Your task to perform on an android device: install app "Google Find My Device" Image 0: 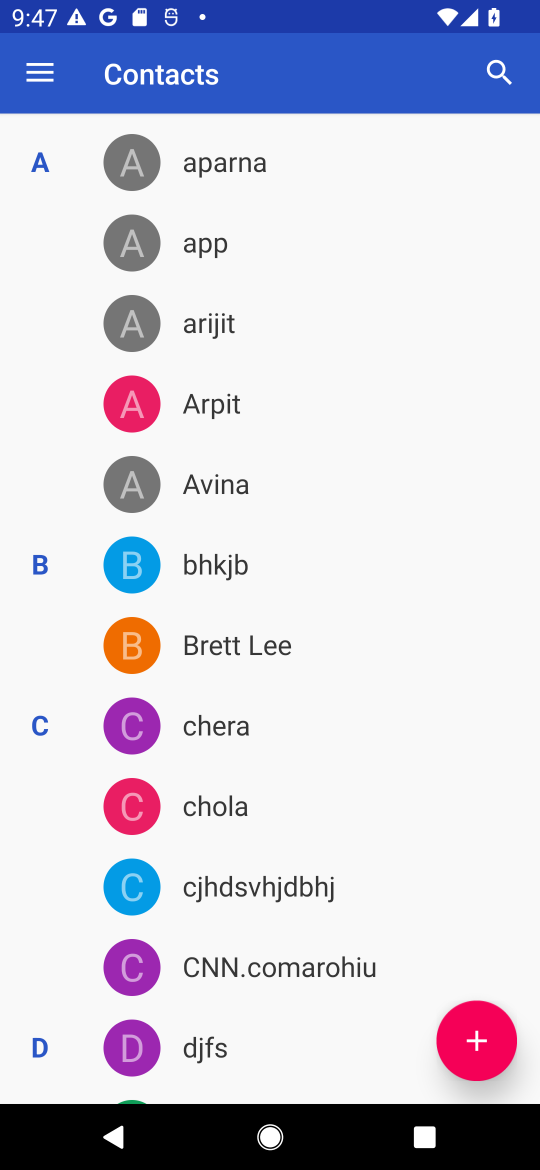
Step 0: press home button
Your task to perform on an android device: install app "Google Find My Device" Image 1: 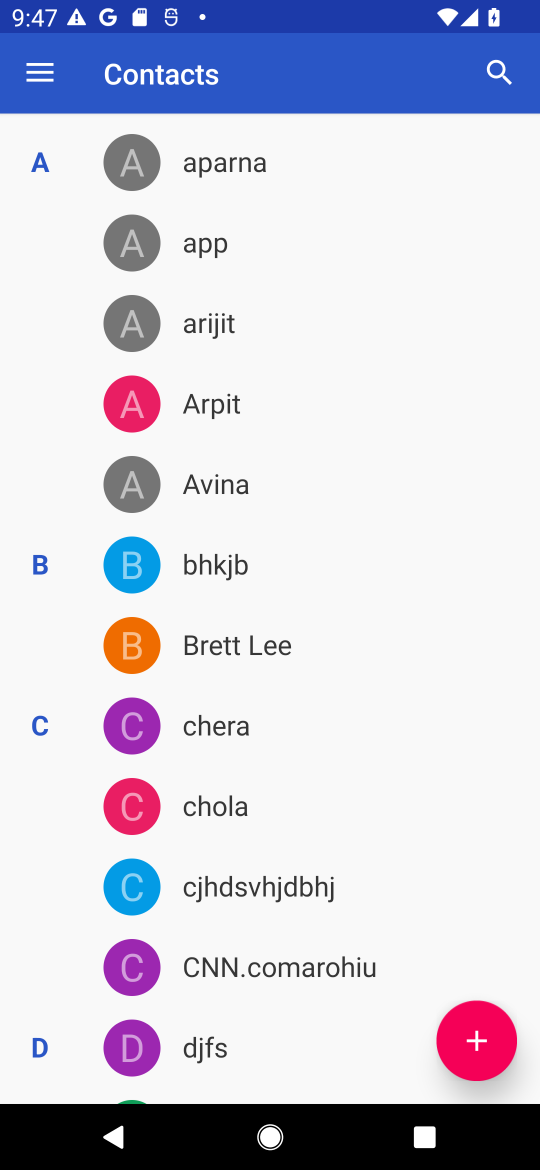
Step 1: press home button
Your task to perform on an android device: install app "Google Find My Device" Image 2: 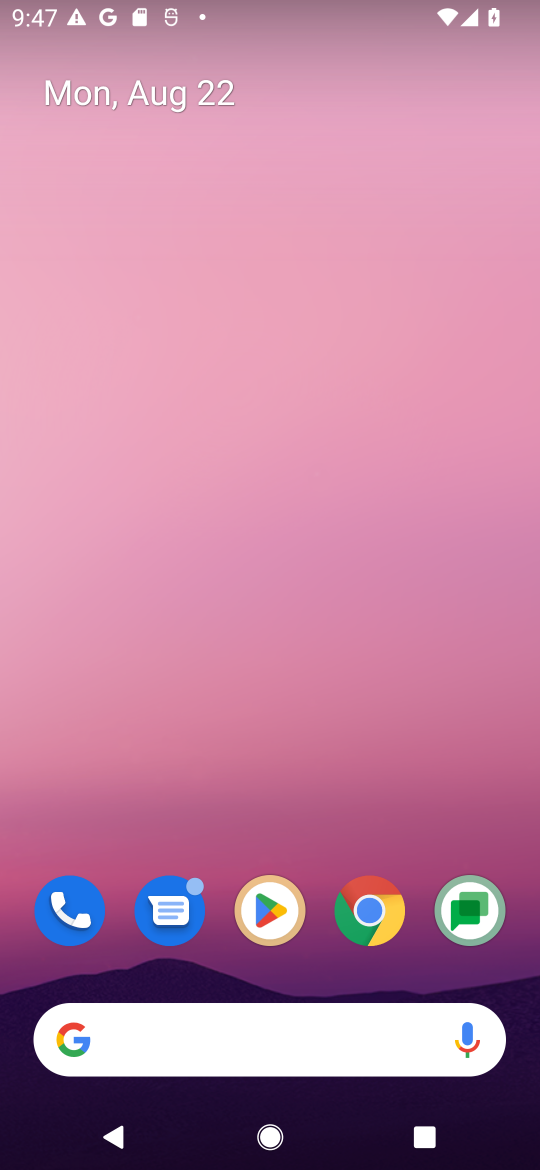
Step 2: click (283, 889)
Your task to perform on an android device: install app "Google Find My Device" Image 3: 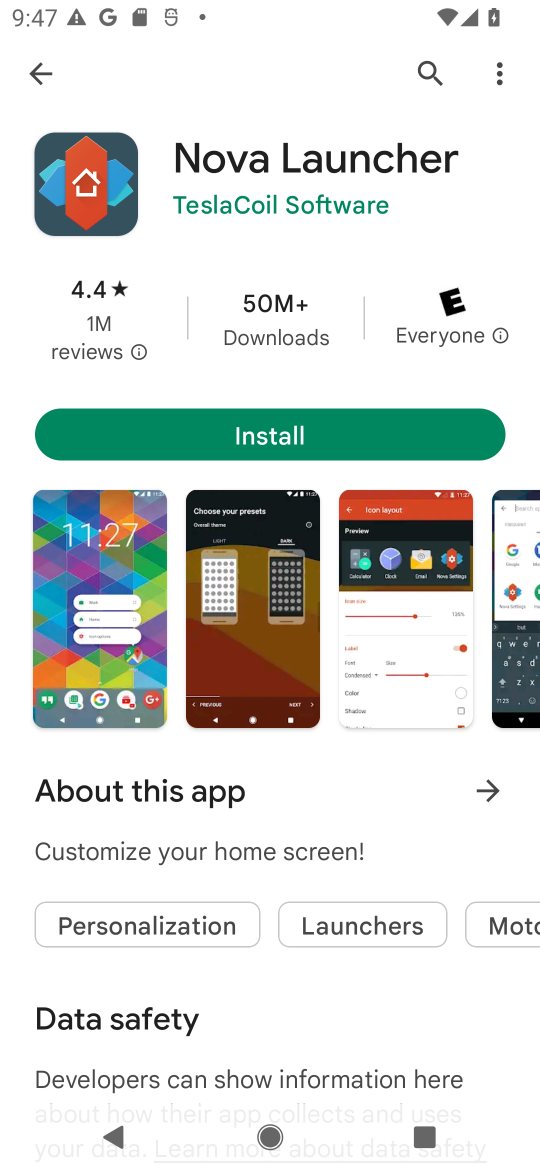
Step 3: click (432, 70)
Your task to perform on an android device: install app "Google Find My Device" Image 4: 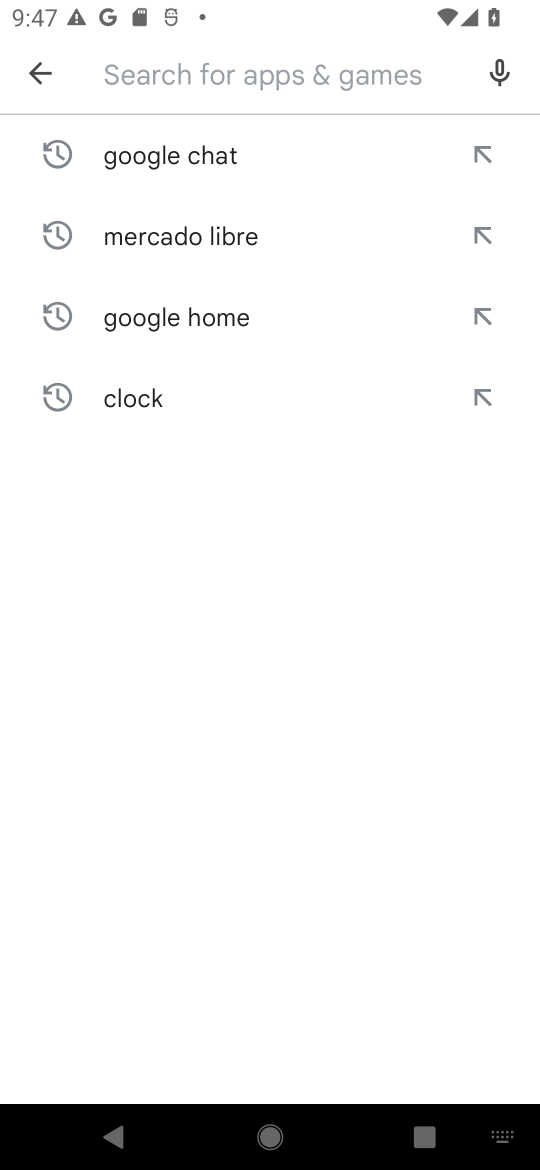
Step 4: type "Google Find My Device"
Your task to perform on an android device: install app "Google Find My Device" Image 5: 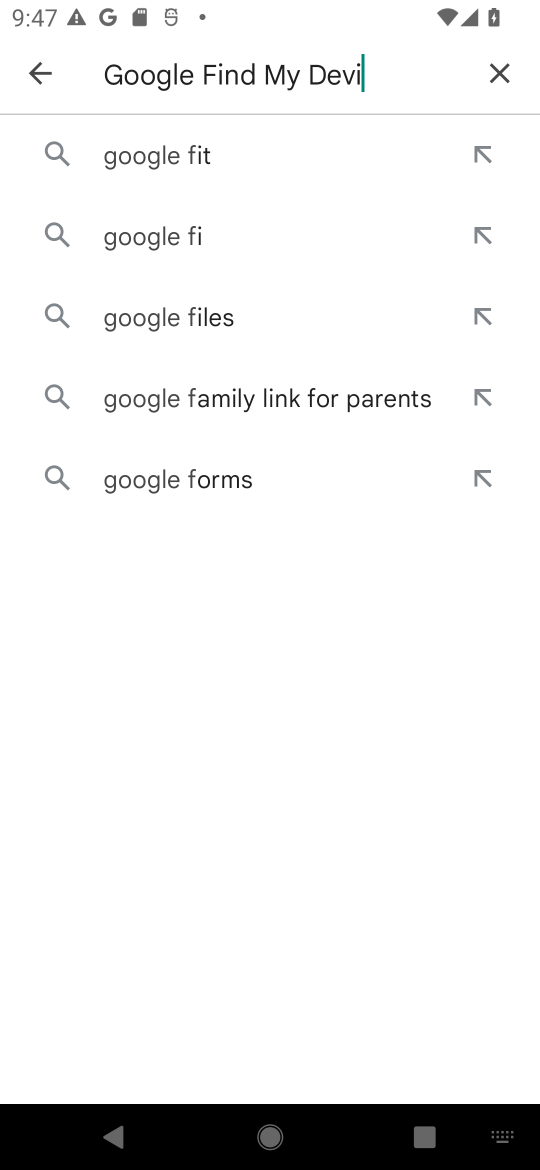
Step 5: type ""
Your task to perform on an android device: install app "Google Find My Device" Image 6: 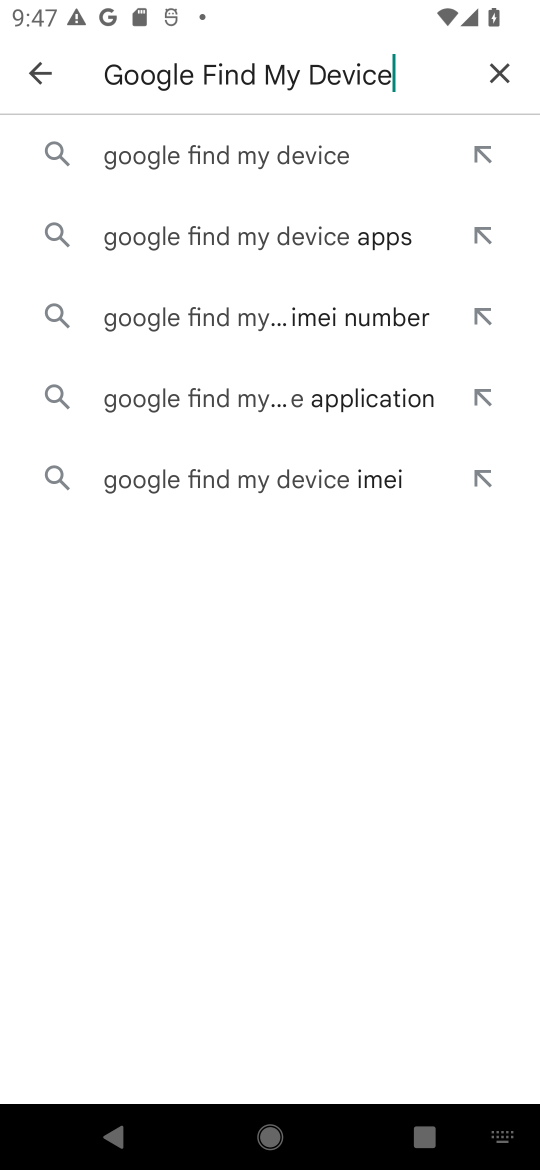
Step 6: click (268, 157)
Your task to perform on an android device: install app "Google Find My Device" Image 7: 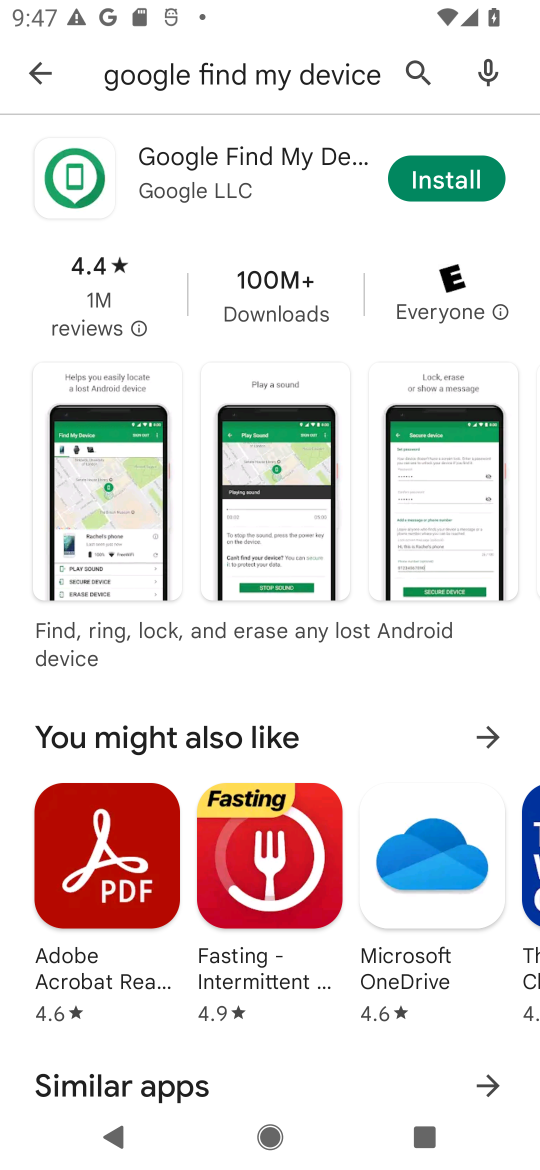
Step 7: click (475, 192)
Your task to perform on an android device: install app "Google Find My Device" Image 8: 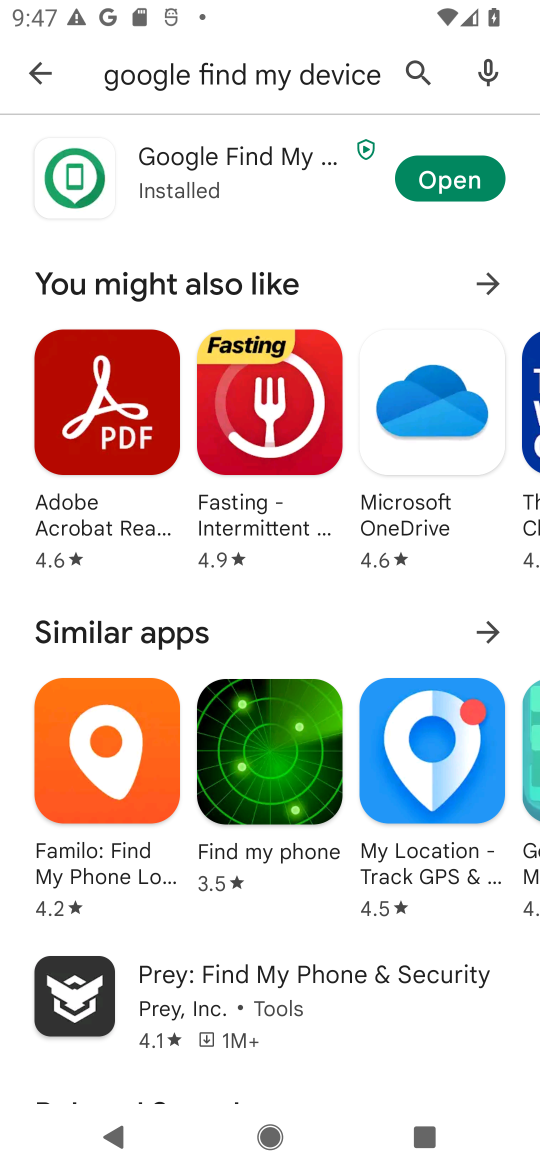
Step 8: task complete